Your task to perform on an android device: set the stopwatch Image 0: 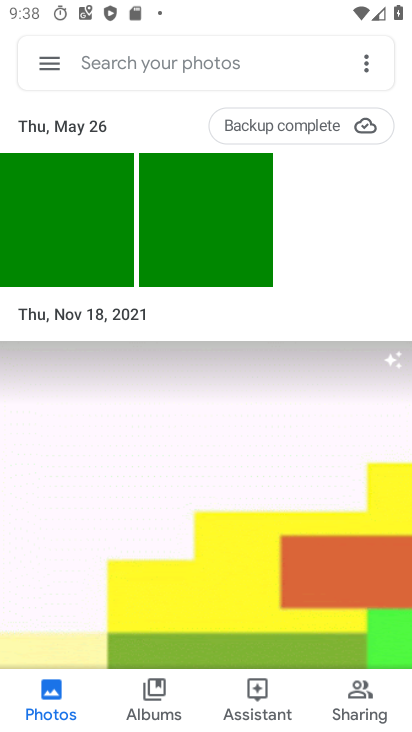
Step 0: press home button
Your task to perform on an android device: set the stopwatch Image 1: 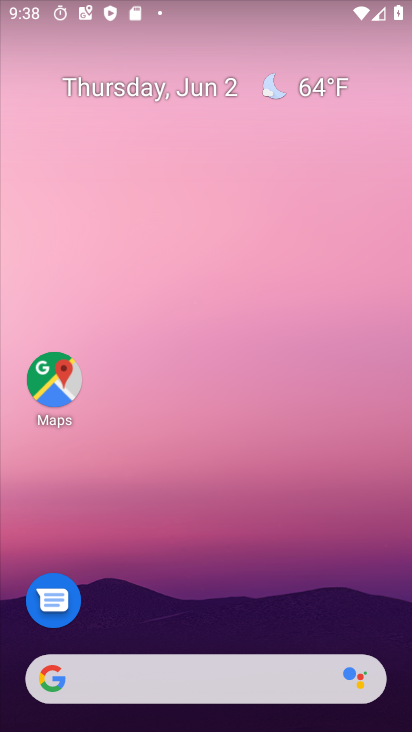
Step 1: drag from (304, 433) to (307, 45)
Your task to perform on an android device: set the stopwatch Image 2: 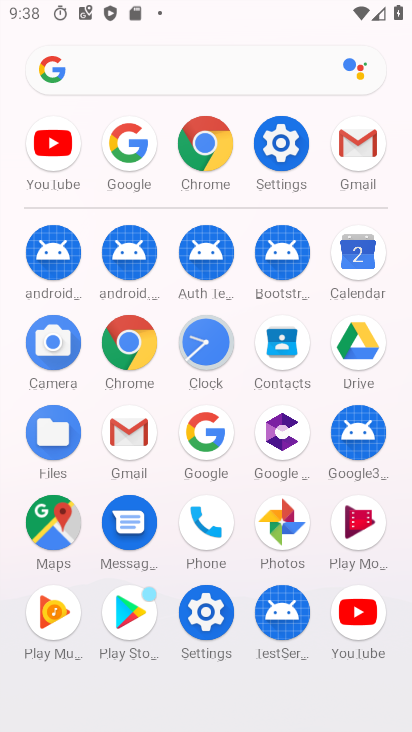
Step 2: click (215, 338)
Your task to perform on an android device: set the stopwatch Image 3: 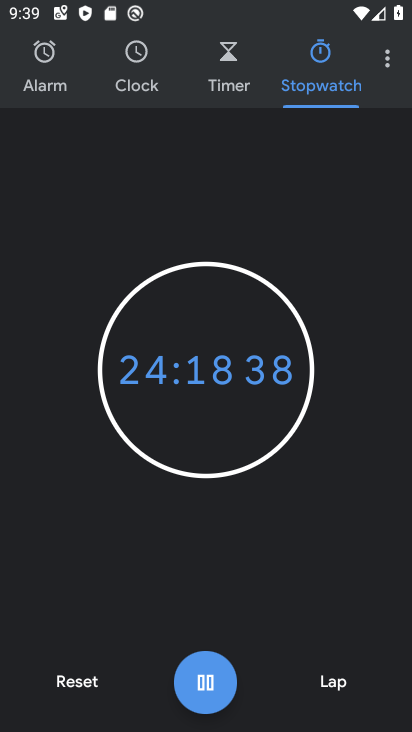
Step 3: click (206, 670)
Your task to perform on an android device: set the stopwatch Image 4: 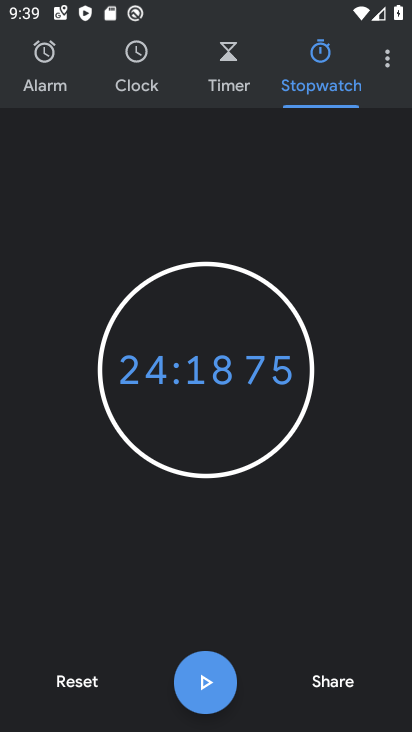
Step 4: task complete